Your task to perform on an android device: Search for beats solo 3 on bestbuy, select the first entry, and add it to the cart. Image 0: 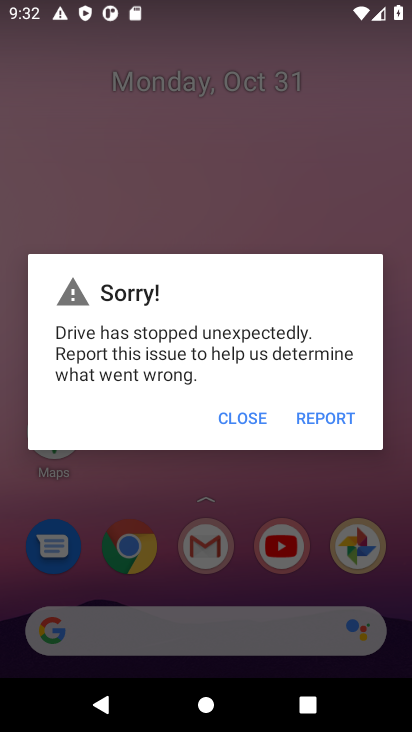
Step 0: press home button
Your task to perform on an android device: Search for beats solo 3 on bestbuy, select the first entry, and add it to the cart. Image 1: 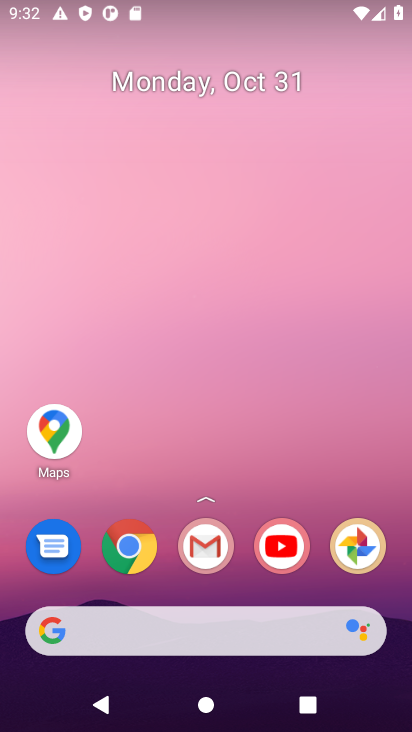
Step 1: click (133, 559)
Your task to perform on an android device: Search for beats solo 3 on bestbuy, select the first entry, and add it to the cart. Image 2: 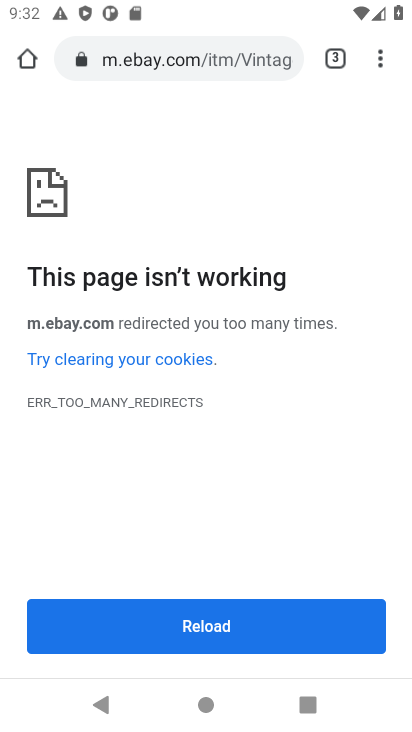
Step 2: click (187, 65)
Your task to perform on an android device: Search for beats solo 3 on bestbuy, select the first entry, and add it to the cart. Image 3: 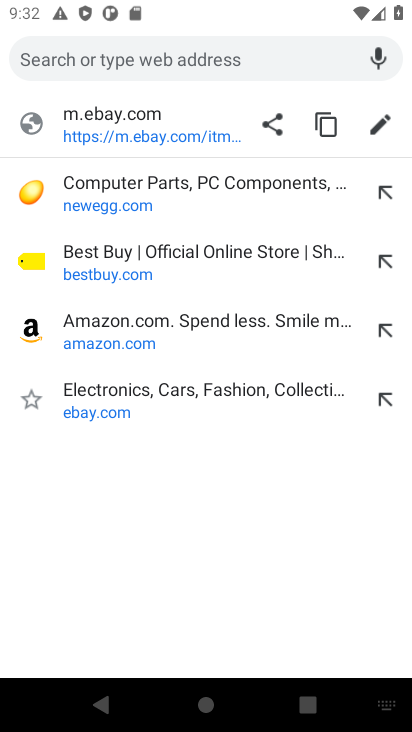
Step 3: type "bestbuy"
Your task to perform on an android device: Search for beats solo 3 on bestbuy, select the first entry, and add it to the cart. Image 4: 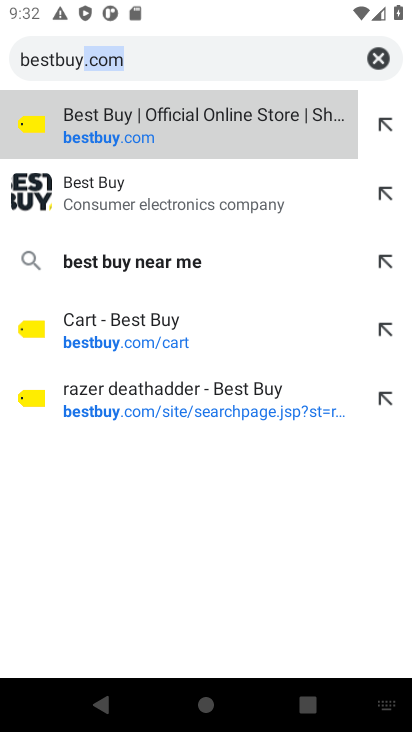
Step 4: click (211, 135)
Your task to perform on an android device: Search for beats solo 3 on bestbuy, select the first entry, and add it to the cart. Image 5: 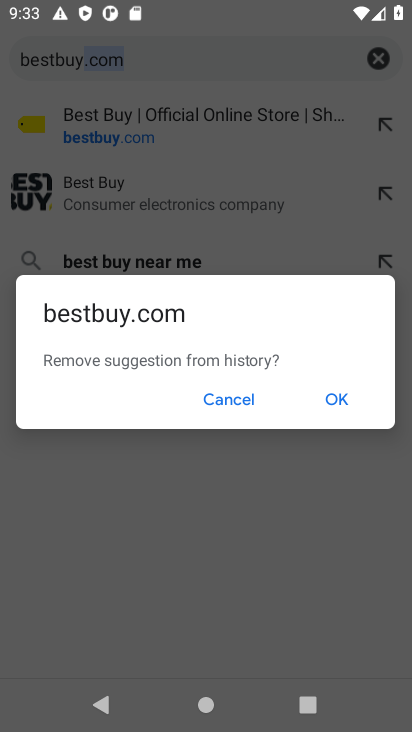
Step 5: press home button
Your task to perform on an android device: Search for beats solo 3 on bestbuy, select the first entry, and add it to the cart. Image 6: 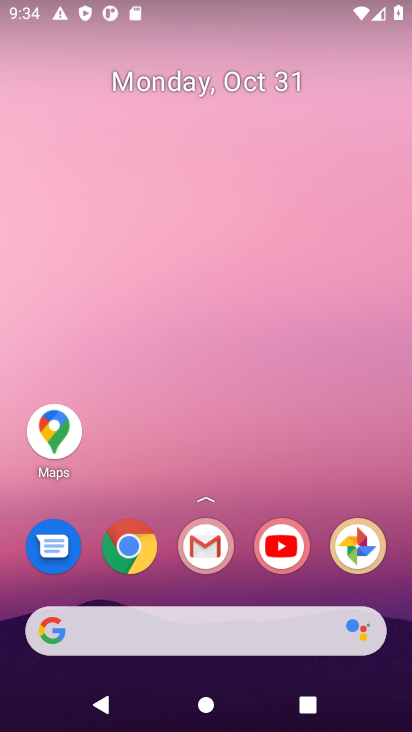
Step 6: click (124, 556)
Your task to perform on an android device: Search for beats solo 3 on bestbuy, select the first entry, and add it to the cart. Image 7: 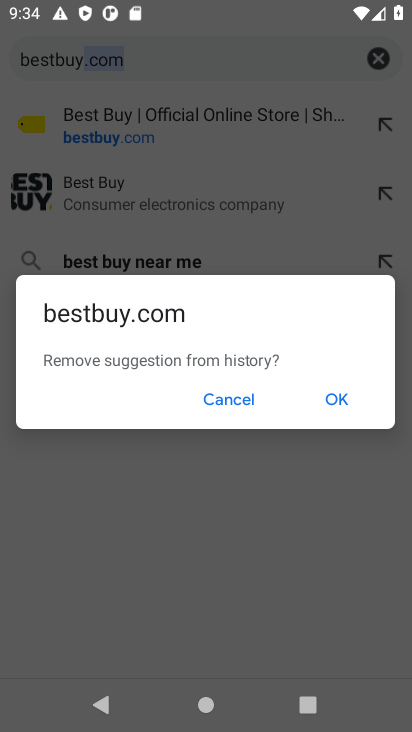
Step 7: click (336, 403)
Your task to perform on an android device: Search for beats solo 3 on bestbuy, select the first entry, and add it to the cart. Image 8: 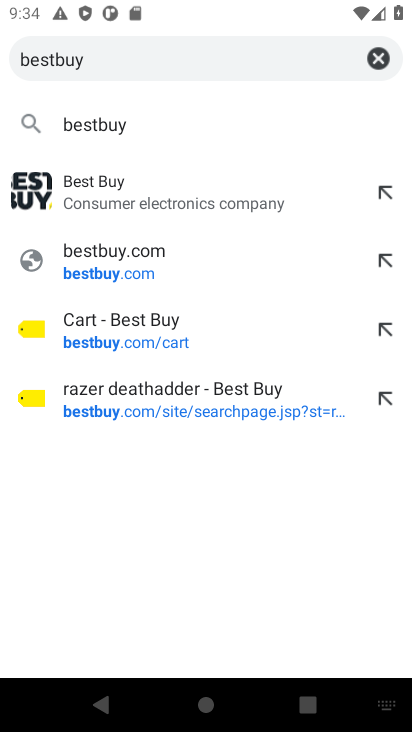
Step 8: click (128, 271)
Your task to perform on an android device: Search for beats solo 3 on bestbuy, select the first entry, and add it to the cart. Image 9: 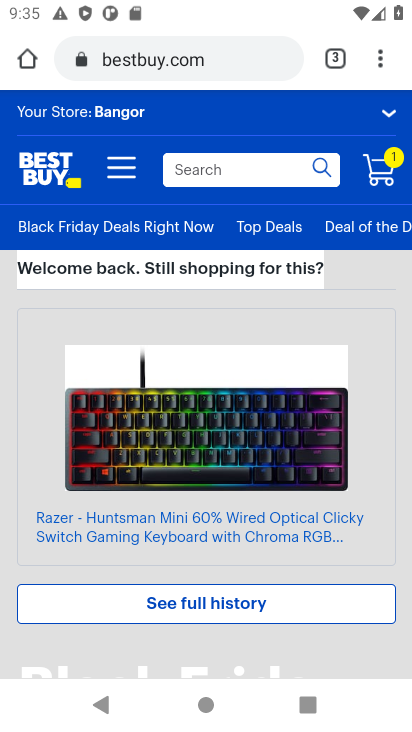
Step 9: click (204, 169)
Your task to perform on an android device: Search for beats solo 3 on bestbuy, select the first entry, and add it to the cart. Image 10: 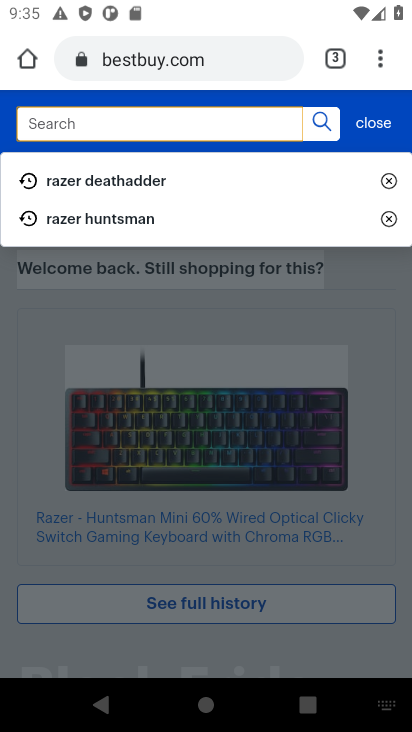
Step 10: type "beats solo 3"
Your task to perform on an android device: Search for beats solo 3 on bestbuy, select the first entry, and add it to the cart. Image 11: 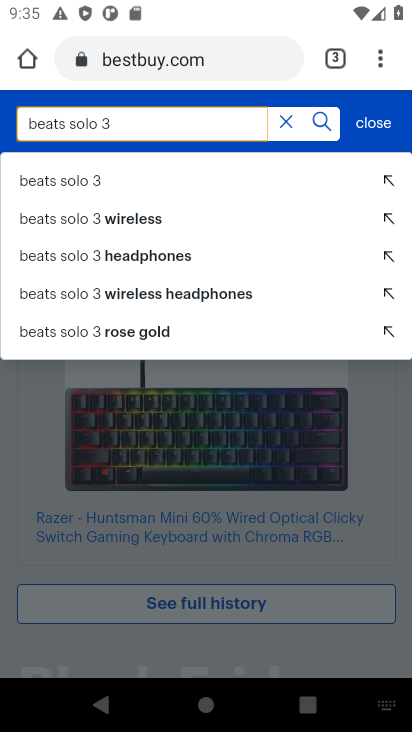
Step 11: press enter
Your task to perform on an android device: Search for beats solo 3 on bestbuy, select the first entry, and add it to the cart. Image 12: 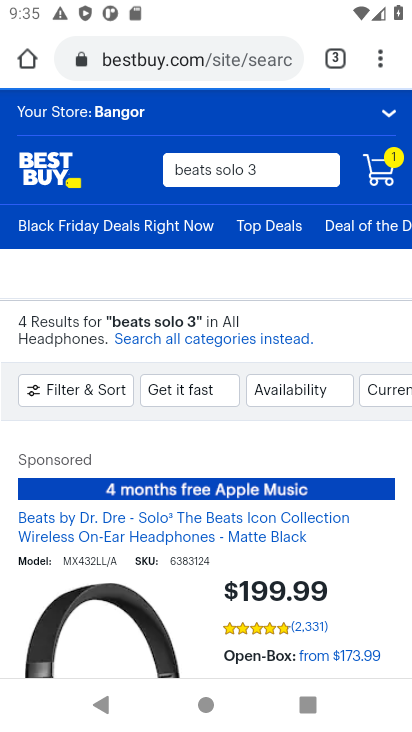
Step 12: drag from (376, 589) to (383, 328)
Your task to perform on an android device: Search for beats solo 3 on bestbuy, select the first entry, and add it to the cart. Image 13: 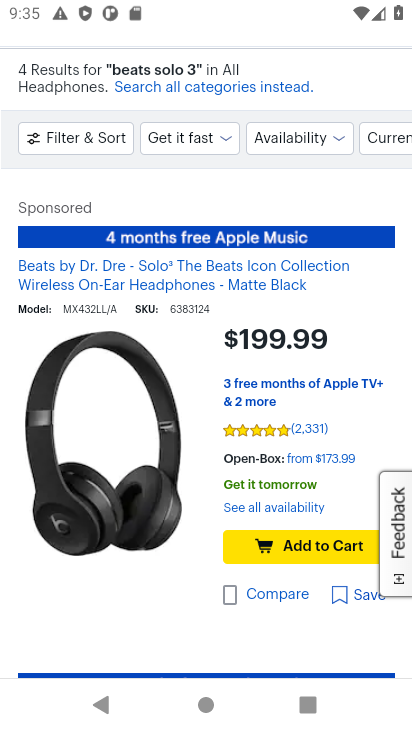
Step 13: click (268, 545)
Your task to perform on an android device: Search for beats solo 3 on bestbuy, select the first entry, and add it to the cart. Image 14: 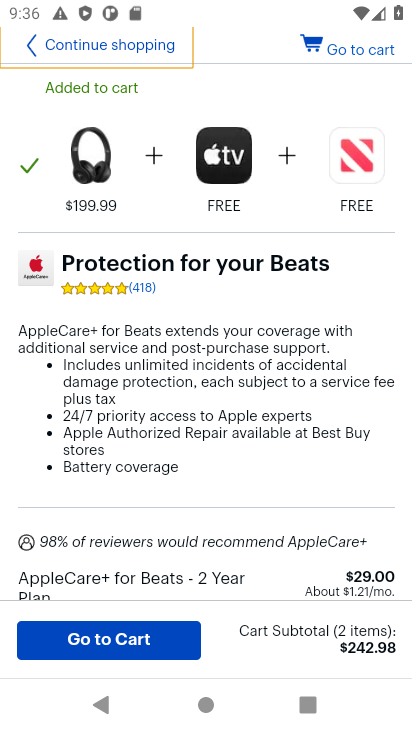
Step 14: click (113, 648)
Your task to perform on an android device: Search for beats solo 3 on bestbuy, select the first entry, and add it to the cart. Image 15: 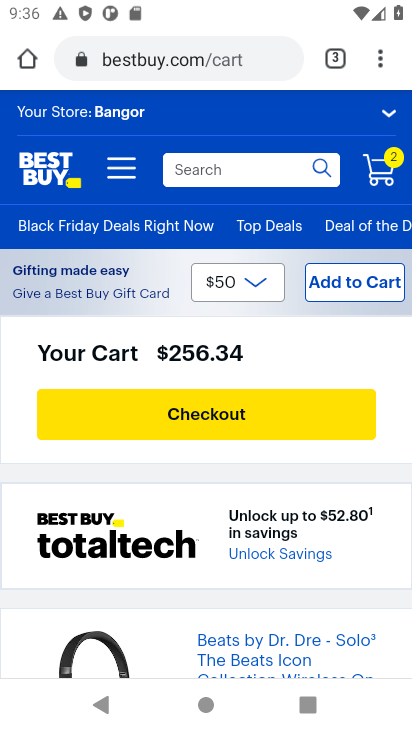
Step 15: task complete